Your task to perform on an android device: Show me the alarms in the clock app Image 0: 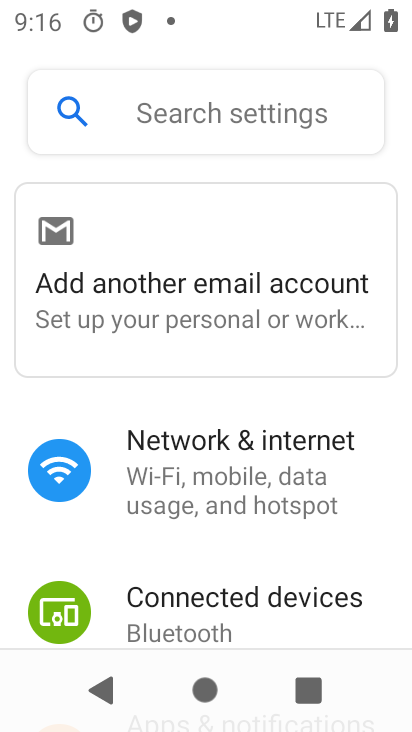
Step 0: press home button
Your task to perform on an android device: Show me the alarms in the clock app Image 1: 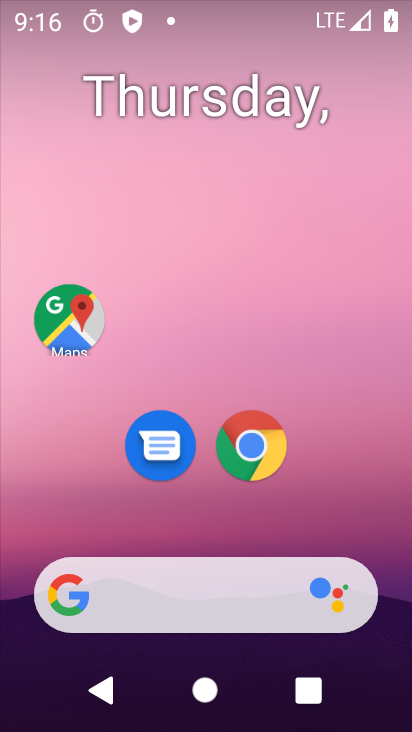
Step 1: drag from (364, 563) to (375, 11)
Your task to perform on an android device: Show me the alarms in the clock app Image 2: 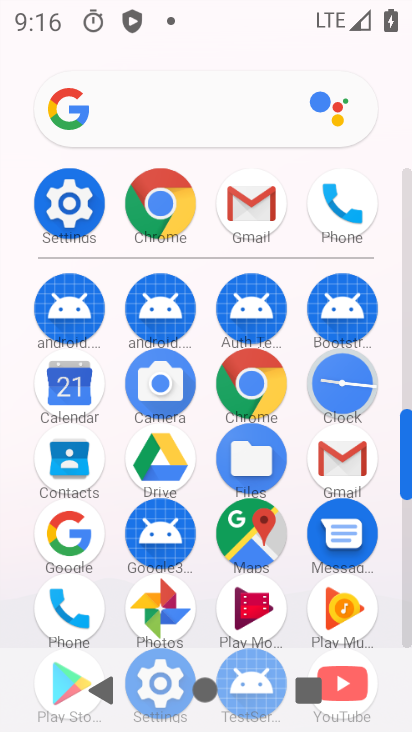
Step 2: click (341, 390)
Your task to perform on an android device: Show me the alarms in the clock app Image 3: 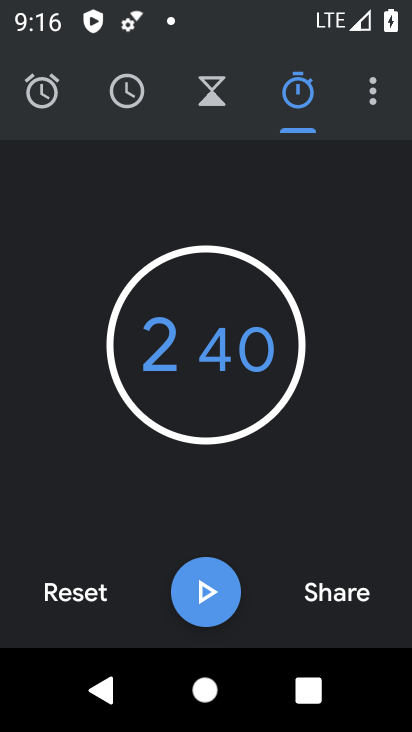
Step 3: click (43, 102)
Your task to perform on an android device: Show me the alarms in the clock app Image 4: 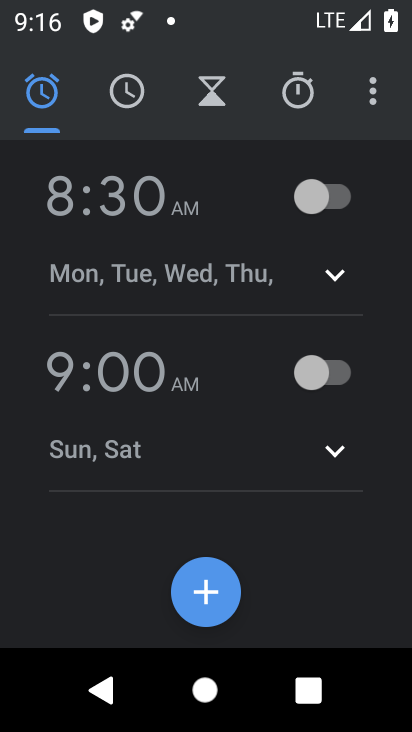
Step 4: task complete